Your task to perform on an android device: toggle wifi Image 0: 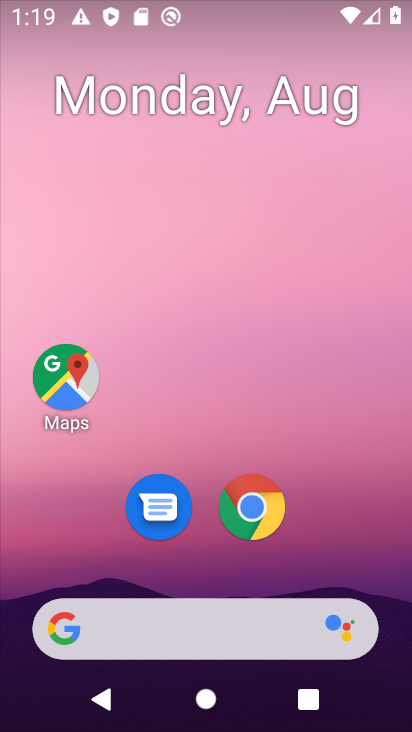
Step 0: press home button
Your task to perform on an android device: toggle wifi Image 1: 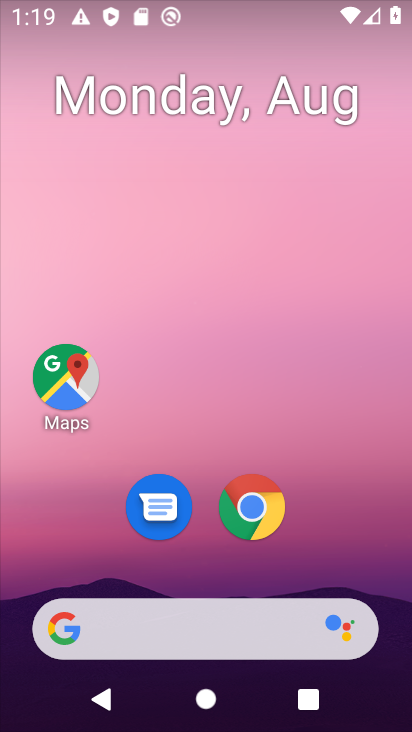
Step 1: drag from (219, 13) to (224, 518)
Your task to perform on an android device: toggle wifi Image 2: 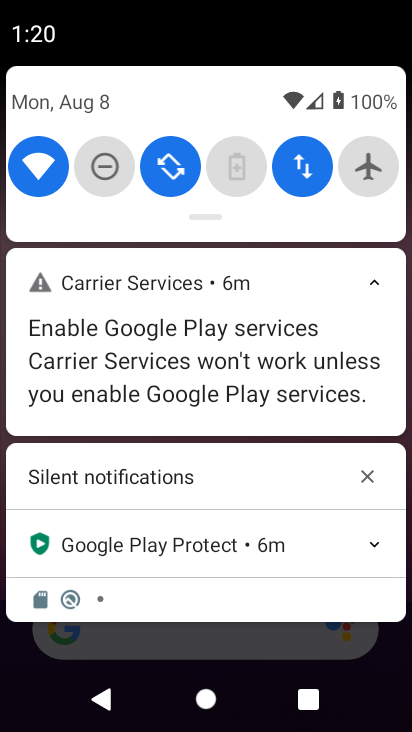
Step 2: click (36, 167)
Your task to perform on an android device: toggle wifi Image 3: 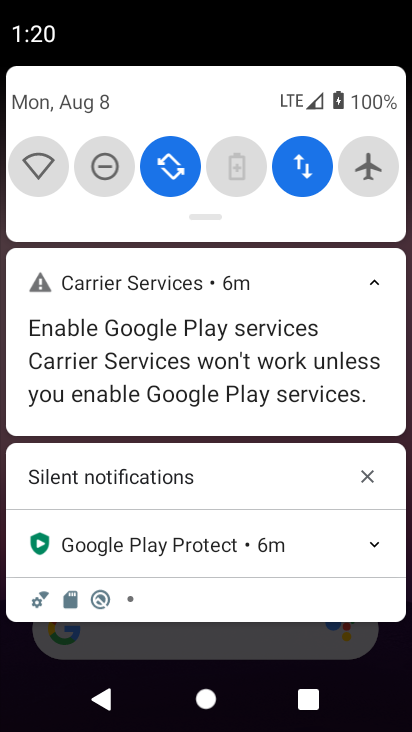
Step 3: task complete